Your task to perform on an android device: turn notification dots off Image 0: 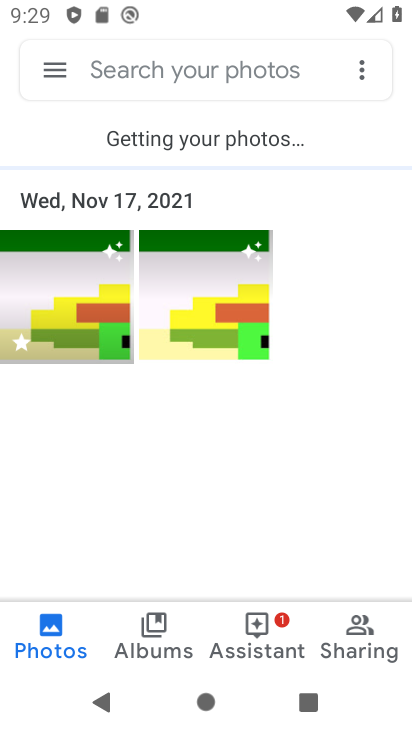
Step 0: press back button
Your task to perform on an android device: turn notification dots off Image 1: 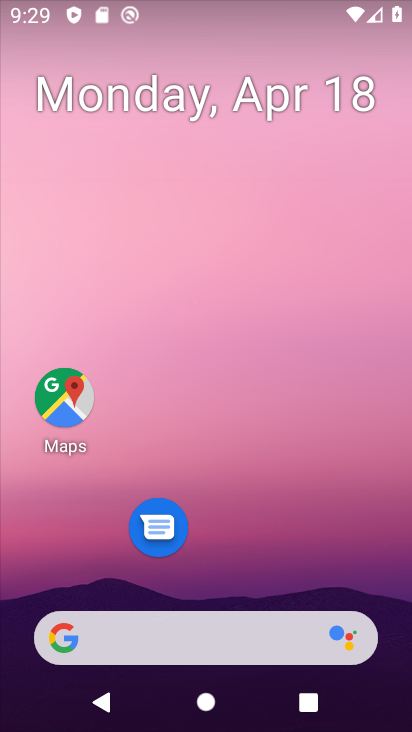
Step 1: drag from (275, 583) to (283, 267)
Your task to perform on an android device: turn notification dots off Image 2: 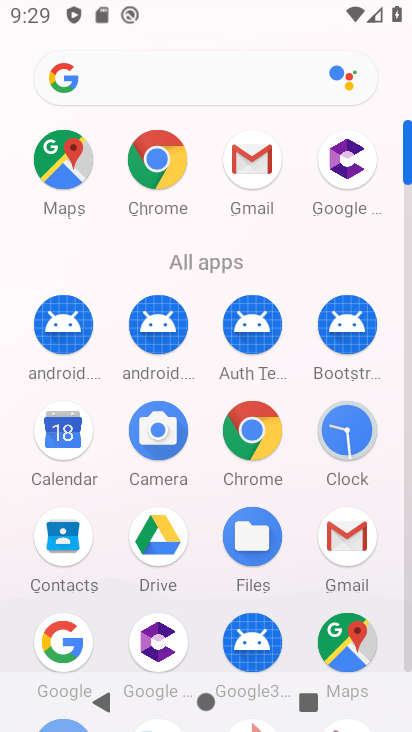
Step 2: drag from (197, 598) to (217, 403)
Your task to perform on an android device: turn notification dots off Image 3: 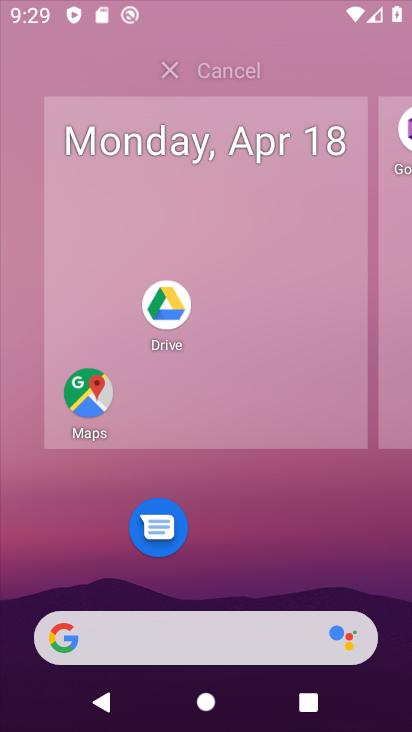
Step 3: drag from (246, 536) to (284, 106)
Your task to perform on an android device: turn notification dots off Image 4: 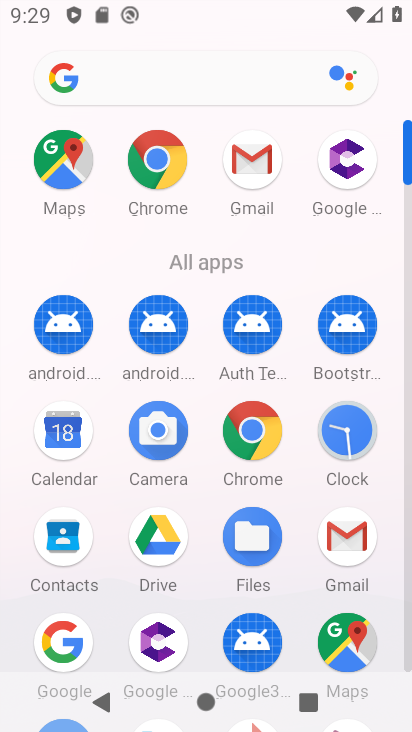
Step 4: drag from (295, 642) to (305, 271)
Your task to perform on an android device: turn notification dots off Image 5: 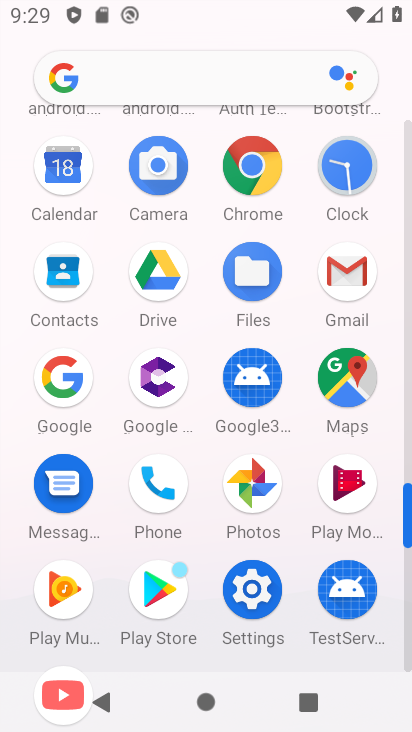
Step 5: click (265, 625)
Your task to perform on an android device: turn notification dots off Image 6: 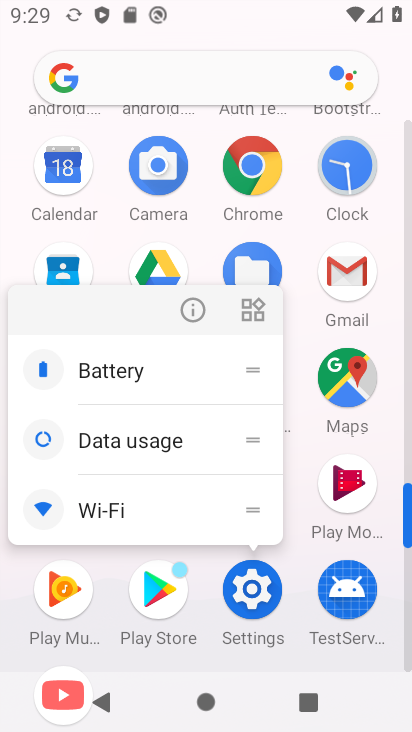
Step 6: click (265, 625)
Your task to perform on an android device: turn notification dots off Image 7: 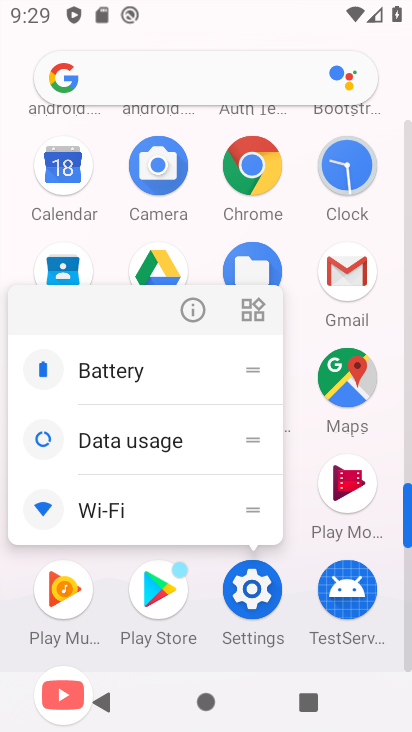
Step 7: click (265, 625)
Your task to perform on an android device: turn notification dots off Image 8: 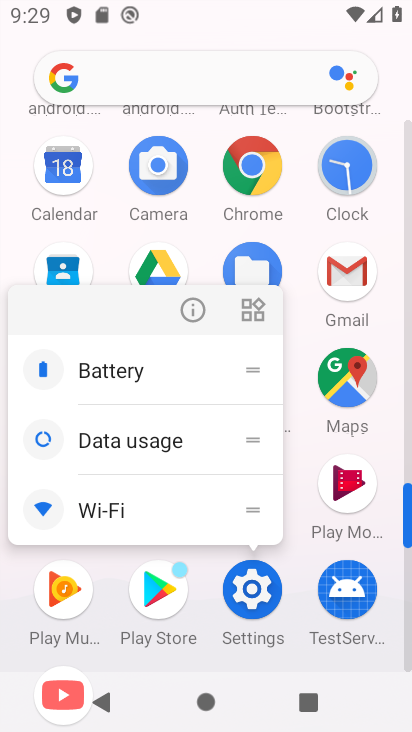
Step 8: click (247, 582)
Your task to perform on an android device: turn notification dots off Image 9: 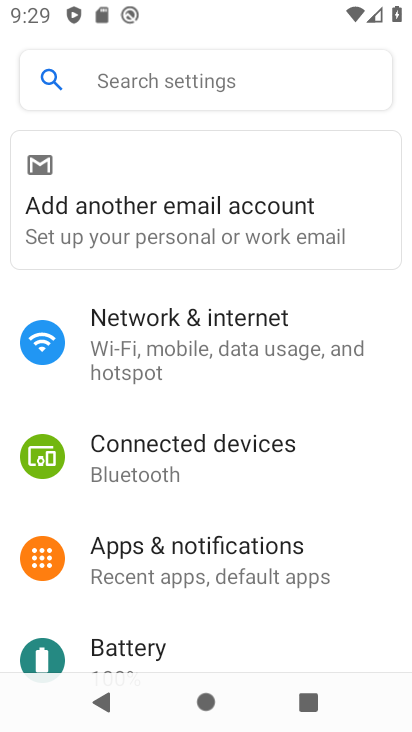
Step 9: drag from (276, 604) to (297, 333)
Your task to perform on an android device: turn notification dots off Image 10: 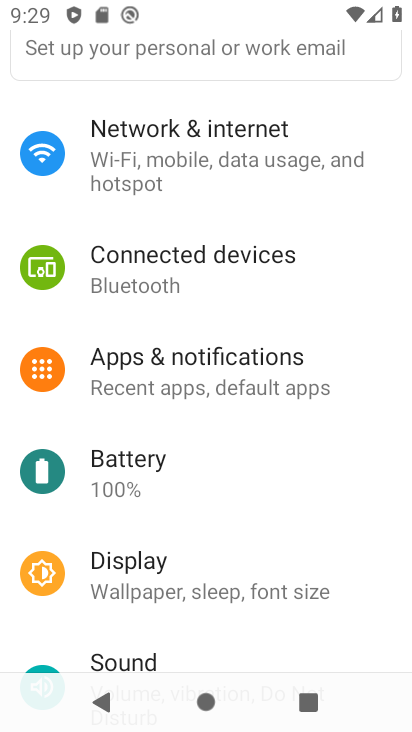
Step 10: drag from (272, 539) to (298, 287)
Your task to perform on an android device: turn notification dots off Image 11: 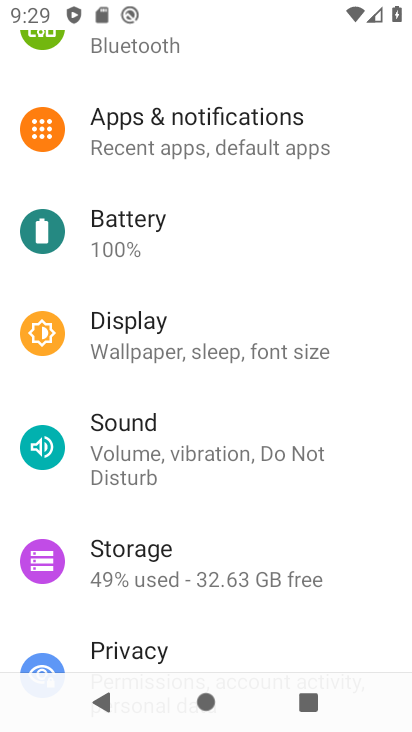
Step 11: drag from (220, 605) to (232, 503)
Your task to perform on an android device: turn notification dots off Image 12: 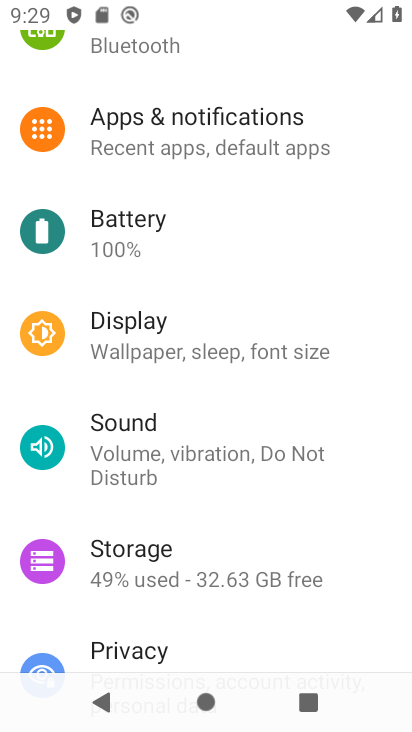
Step 12: click (243, 157)
Your task to perform on an android device: turn notification dots off Image 13: 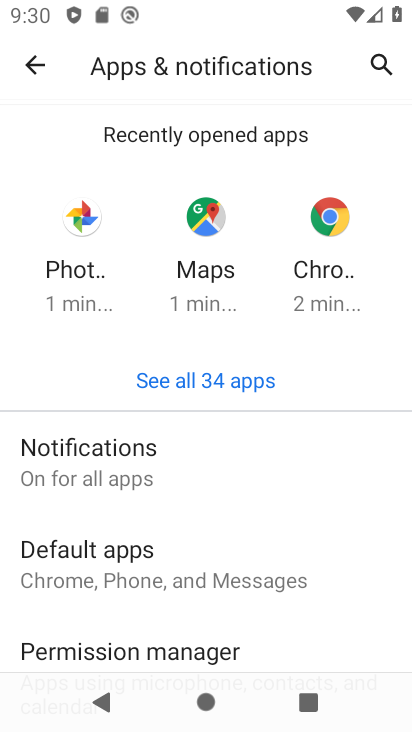
Step 13: drag from (222, 493) to (328, 137)
Your task to perform on an android device: turn notification dots off Image 14: 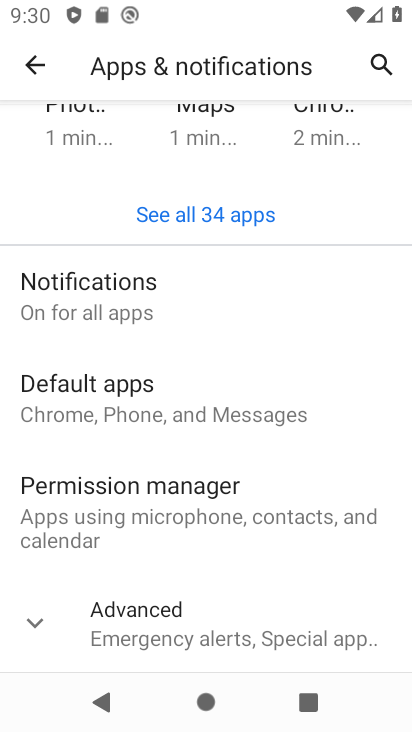
Step 14: click (299, 602)
Your task to perform on an android device: turn notification dots off Image 15: 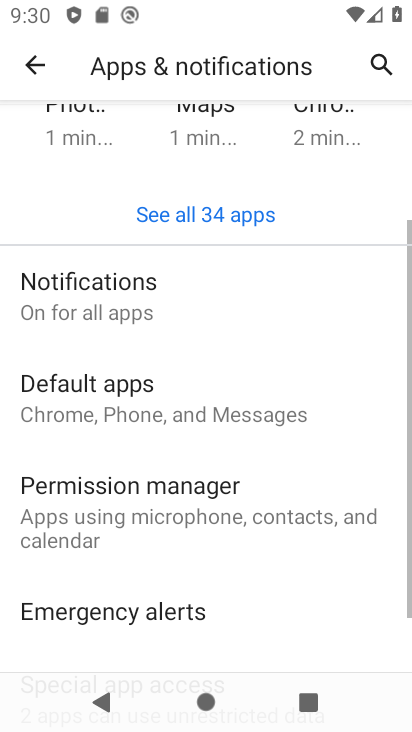
Step 15: drag from (290, 562) to (244, 202)
Your task to perform on an android device: turn notification dots off Image 16: 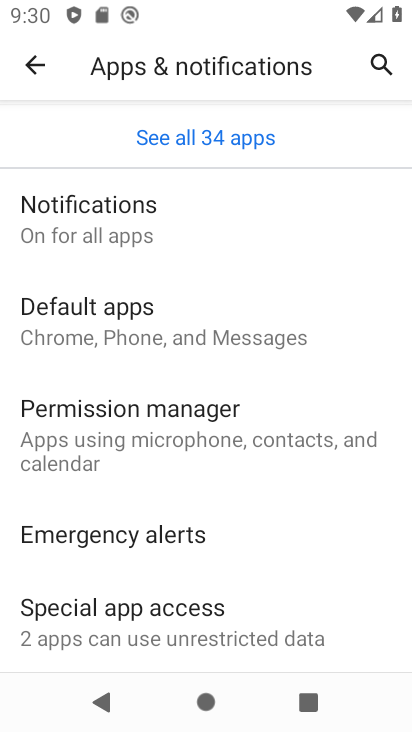
Step 16: click (190, 237)
Your task to perform on an android device: turn notification dots off Image 17: 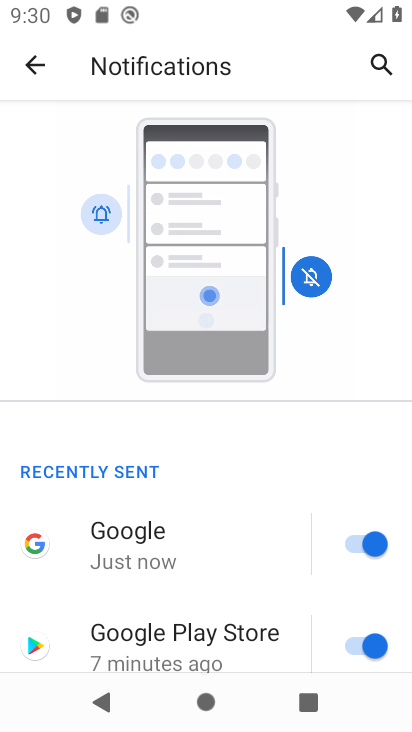
Step 17: drag from (250, 581) to (209, 203)
Your task to perform on an android device: turn notification dots off Image 18: 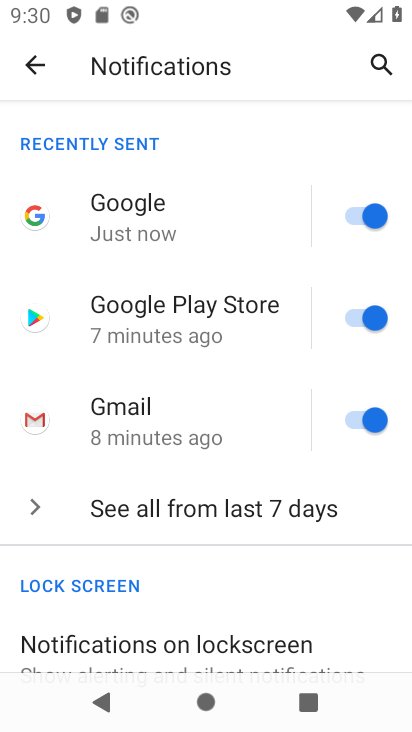
Step 18: drag from (237, 579) to (163, 93)
Your task to perform on an android device: turn notification dots off Image 19: 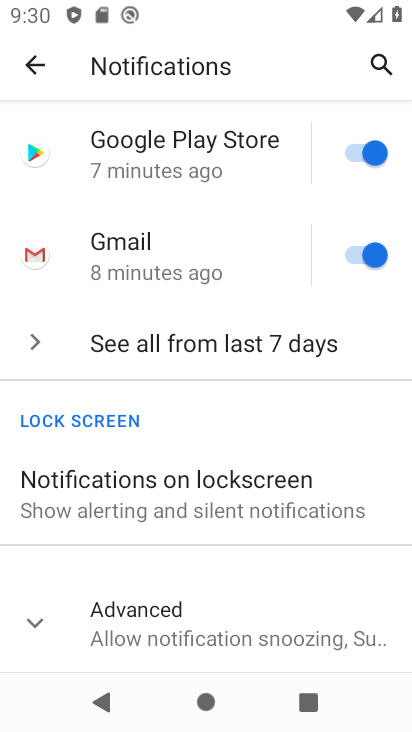
Step 19: click (149, 624)
Your task to perform on an android device: turn notification dots off Image 20: 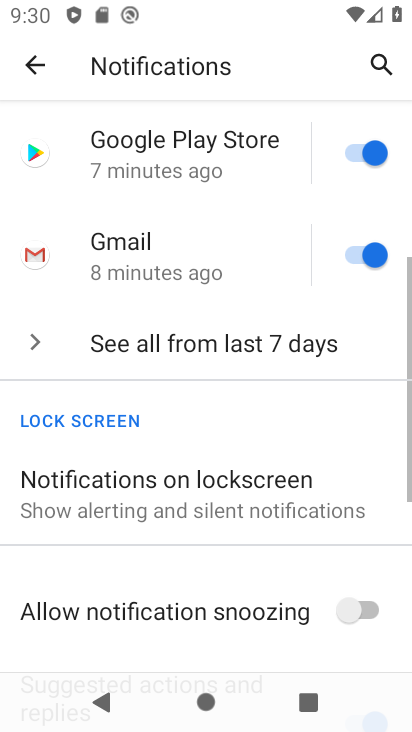
Step 20: drag from (140, 570) to (110, 236)
Your task to perform on an android device: turn notification dots off Image 21: 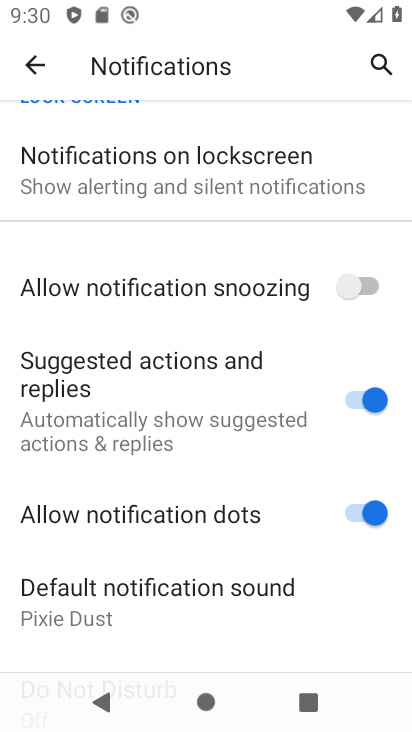
Step 21: click (281, 528)
Your task to perform on an android device: turn notification dots off Image 22: 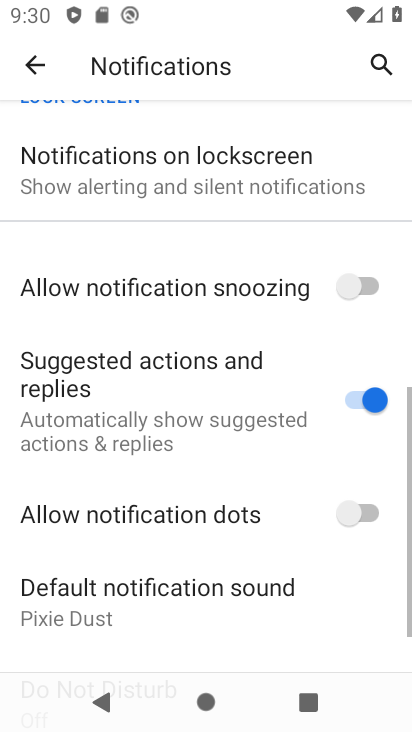
Step 22: task complete